Your task to perform on an android device: turn on airplane mode Image 0: 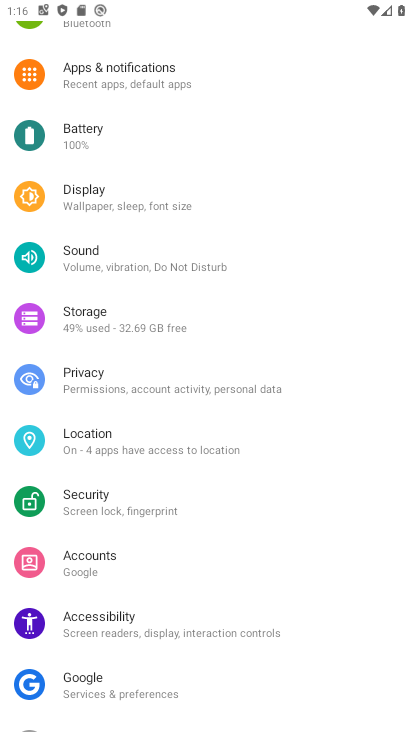
Step 0: press home button
Your task to perform on an android device: turn on airplane mode Image 1: 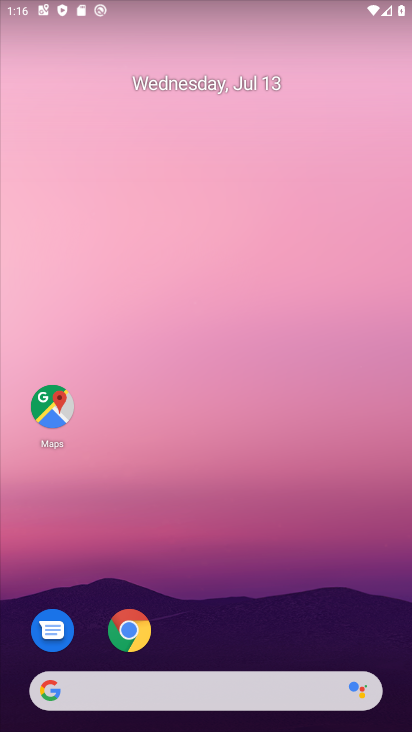
Step 1: drag from (319, 594) to (321, 111)
Your task to perform on an android device: turn on airplane mode Image 2: 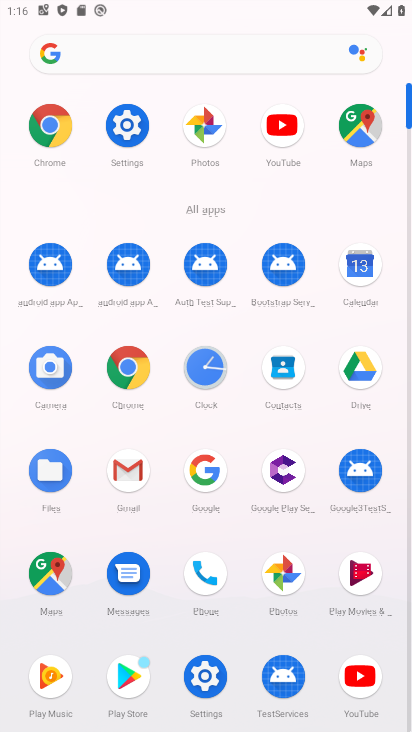
Step 2: click (132, 135)
Your task to perform on an android device: turn on airplane mode Image 3: 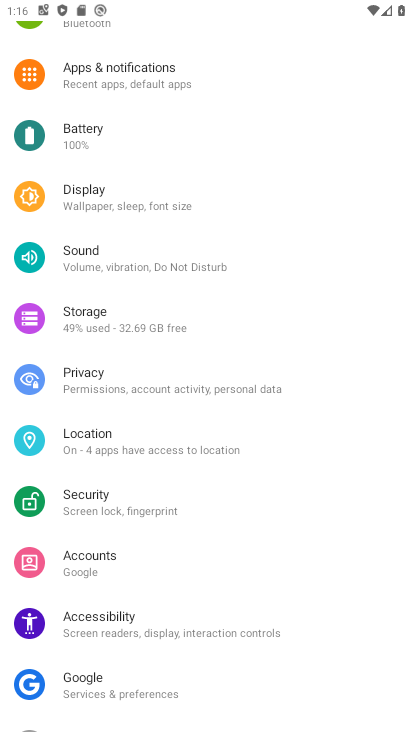
Step 3: drag from (305, 543) to (331, 345)
Your task to perform on an android device: turn on airplane mode Image 4: 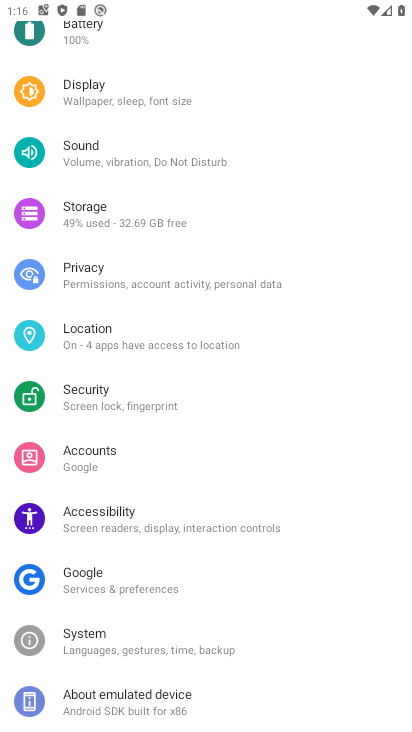
Step 4: drag from (346, 268) to (346, 389)
Your task to perform on an android device: turn on airplane mode Image 5: 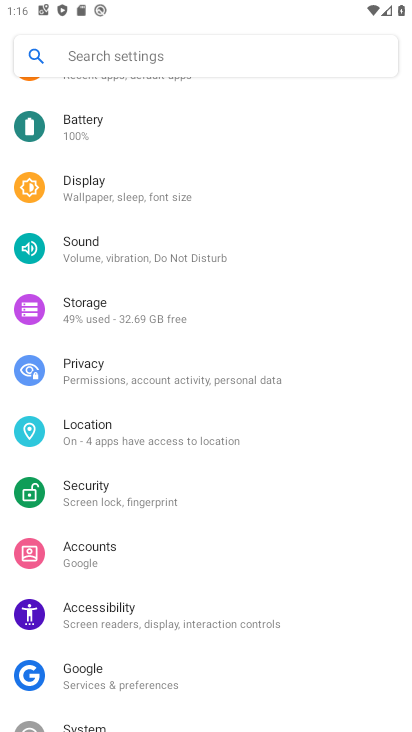
Step 5: drag from (335, 284) to (328, 439)
Your task to perform on an android device: turn on airplane mode Image 6: 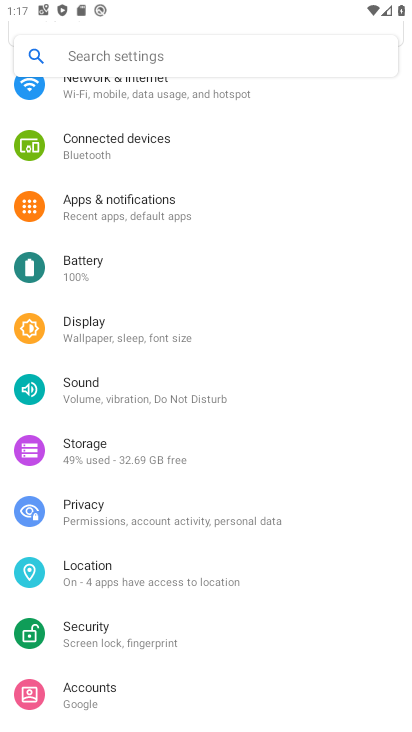
Step 6: drag from (326, 277) to (321, 443)
Your task to perform on an android device: turn on airplane mode Image 7: 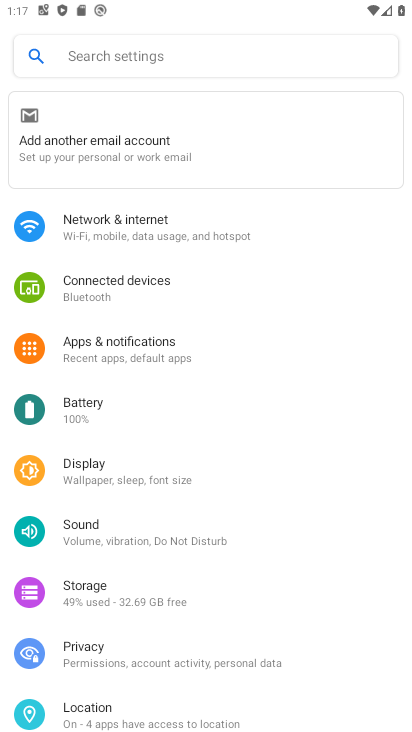
Step 7: click (230, 232)
Your task to perform on an android device: turn on airplane mode Image 8: 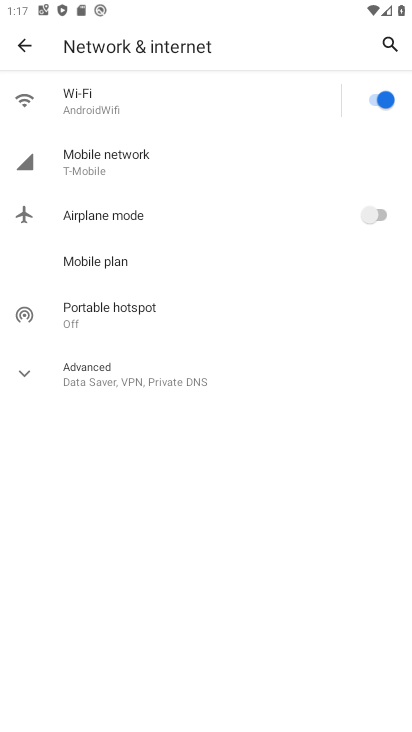
Step 8: click (374, 218)
Your task to perform on an android device: turn on airplane mode Image 9: 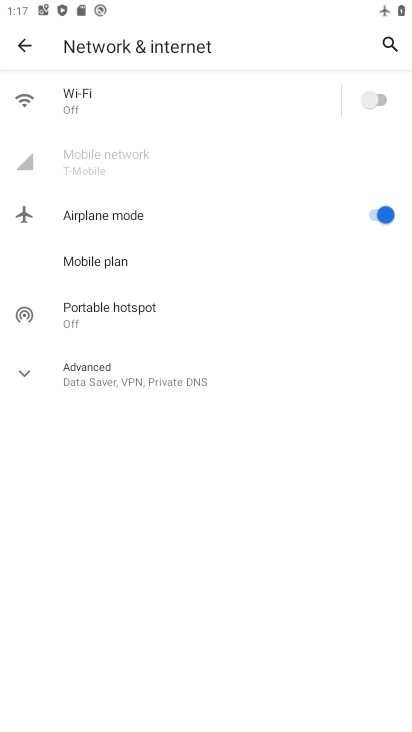
Step 9: task complete